Your task to perform on an android device: Add "jbl charge 4" to the cart on target Image 0: 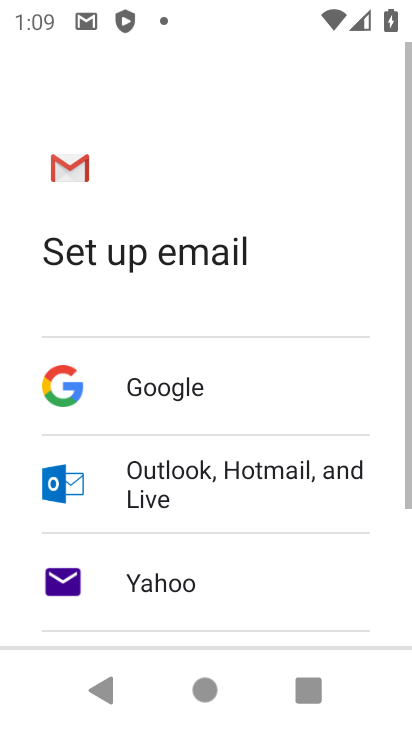
Step 0: press home button
Your task to perform on an android device: Add "jbl charge 4" to the cart on target Image 1: 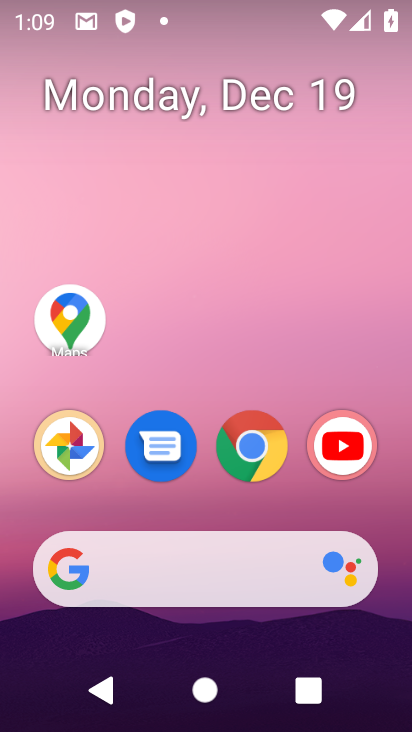
Step 1: click (242, 478)
Your task to perform on an android device: Add "jbl charge 4" to the cart on target Image 2: 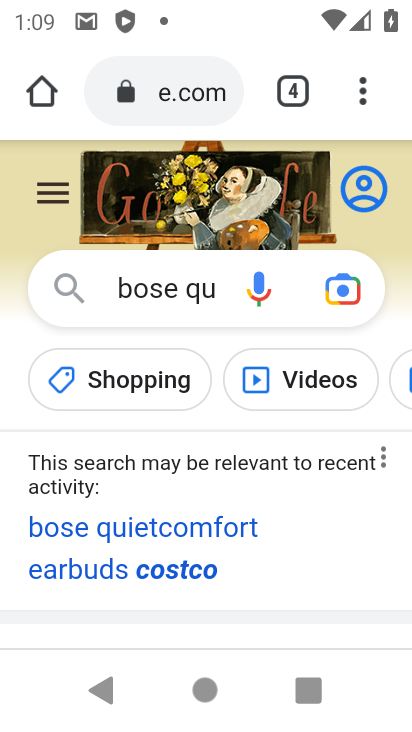
Step 2: click (175, 104)
Your task to perform on an android device: Add "jbl charge 4" to the cart on target Image 3: 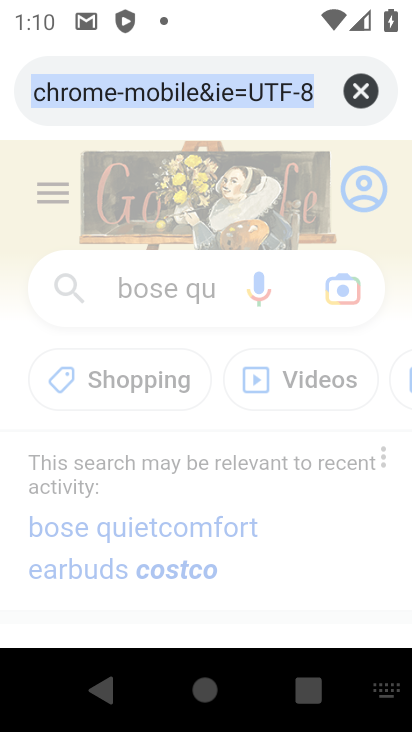
Step 3: click (368, 87)
Your task to perform on an android device: Add "jbl charge 4" to the cart on target Image 4: 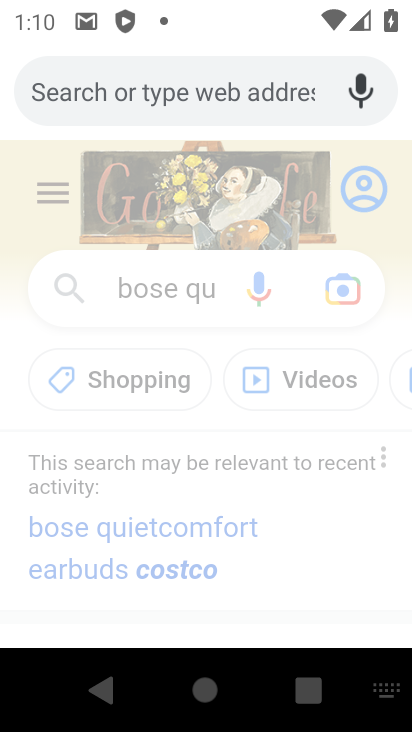
Step 4: type "target"
Your task to perform on an android device: Add "jbl charge 4" to the cart on target Image 5: 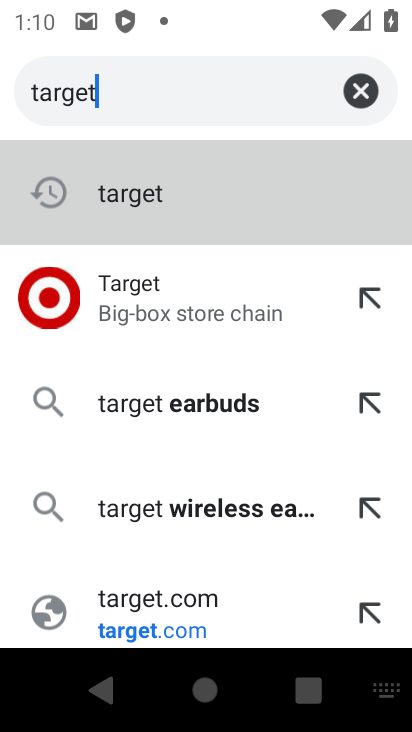
Step 5: click (117, 321)
Your task to perform on an android device: Add "jbl charge 4" to the cart on target Image 6: 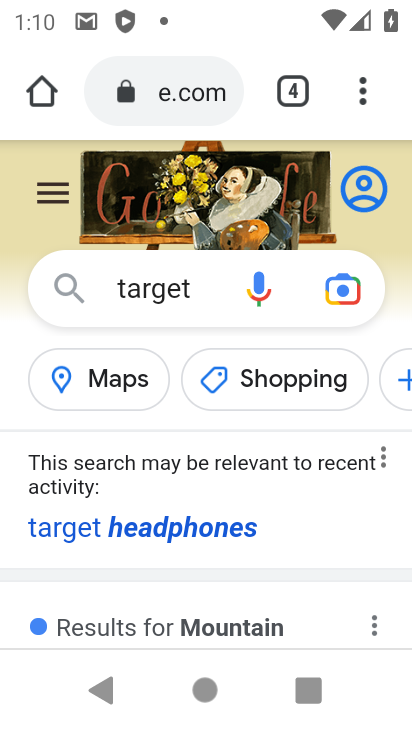
Step 6: task complete